Your task to perform on an android device: Search for logitech g502 on target, select the first entry, and add it to the cart. Image 0: 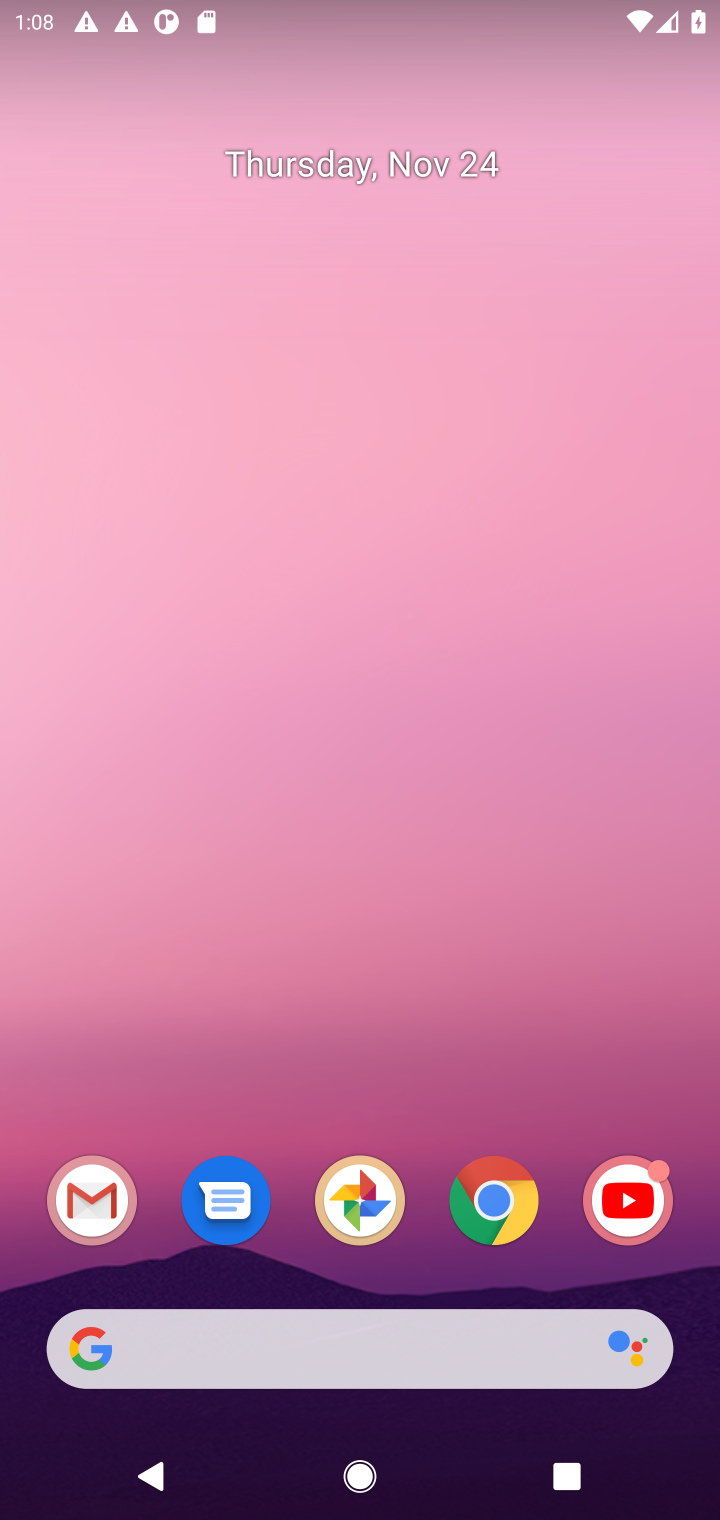
Step 0: click (411, 1313)
Your task to perform on an android device: Search for logitech g502 on target, select the first entry, and add it to the cart. Image 1: 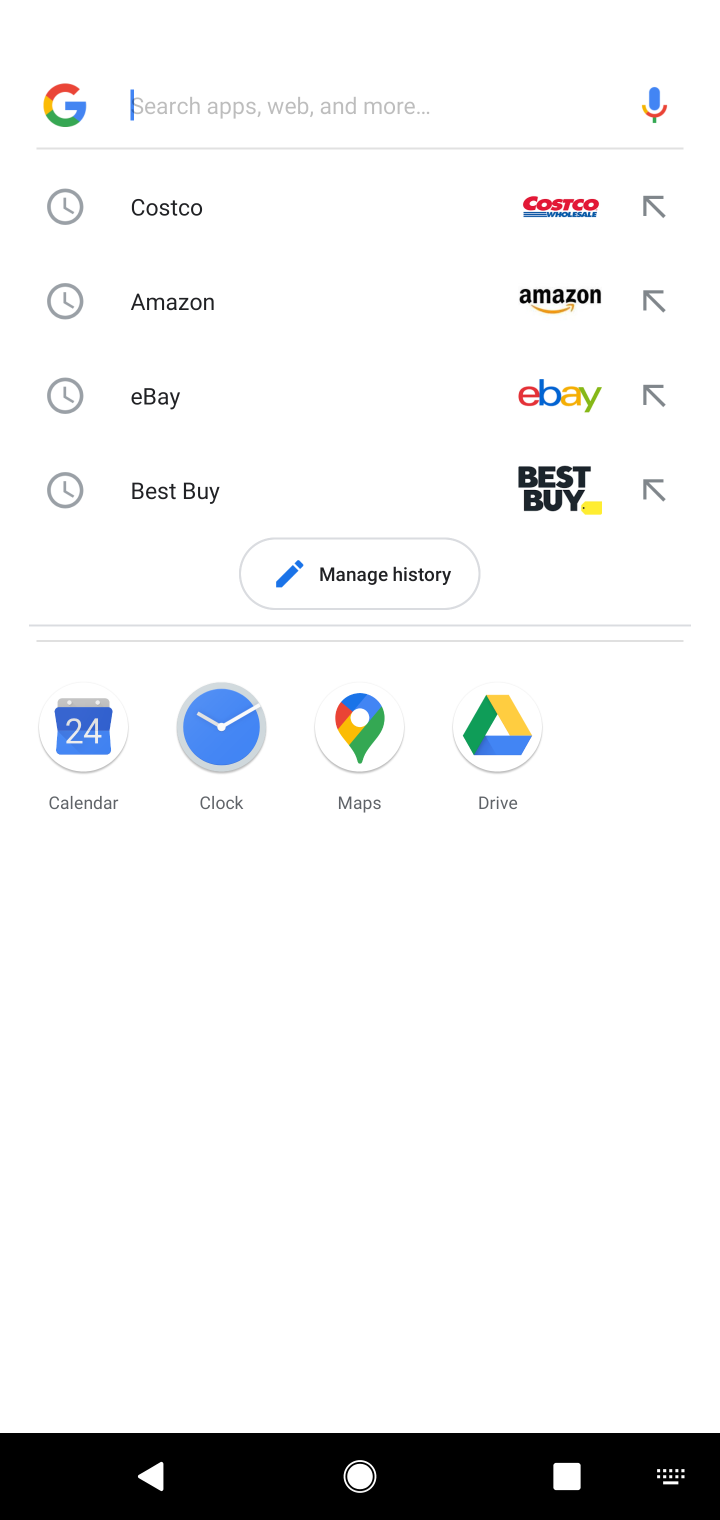
Step 1: type "target"
Your task to perform on an android device: Search for logitech g502 on target, select the first entry, and add it to the cart. Image 2: 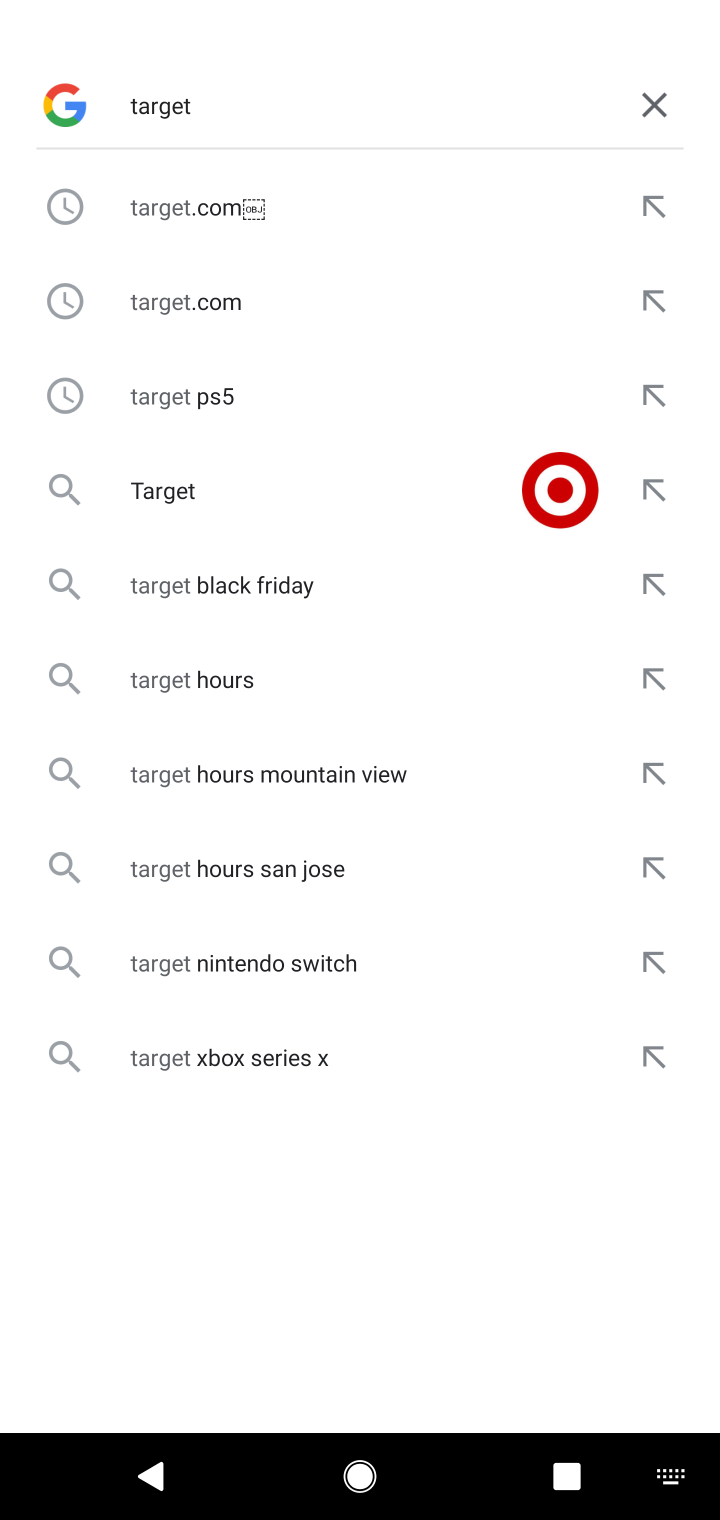
Step 2: type "taget"
Your task to perform on an android device: Search for logitech g502 on target, select the first entry, and add it to the cart. Image 3: 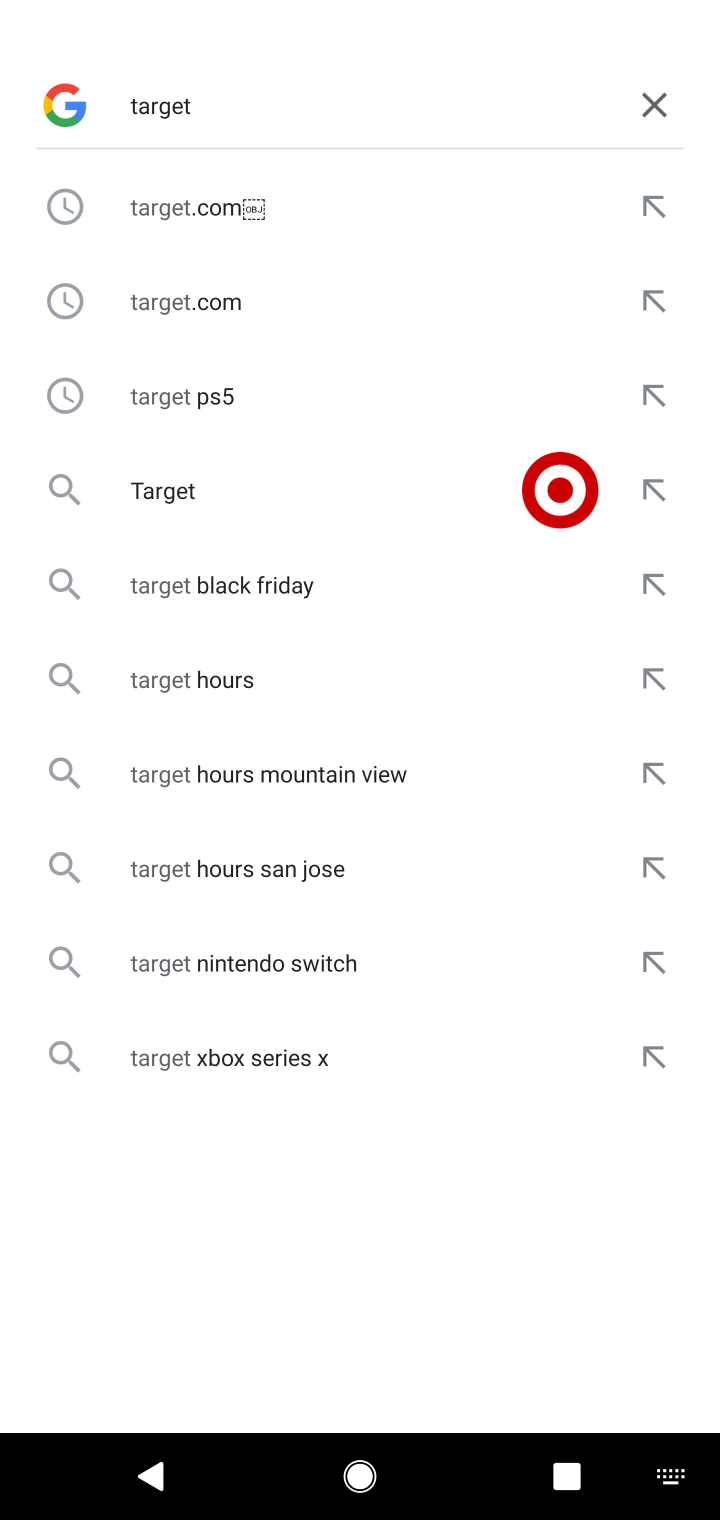
Step 3: click (255, 470)
Your task to perform on an android device: Search for logitech g502 on target, select the first entry, and add it to the cart. Image 4: 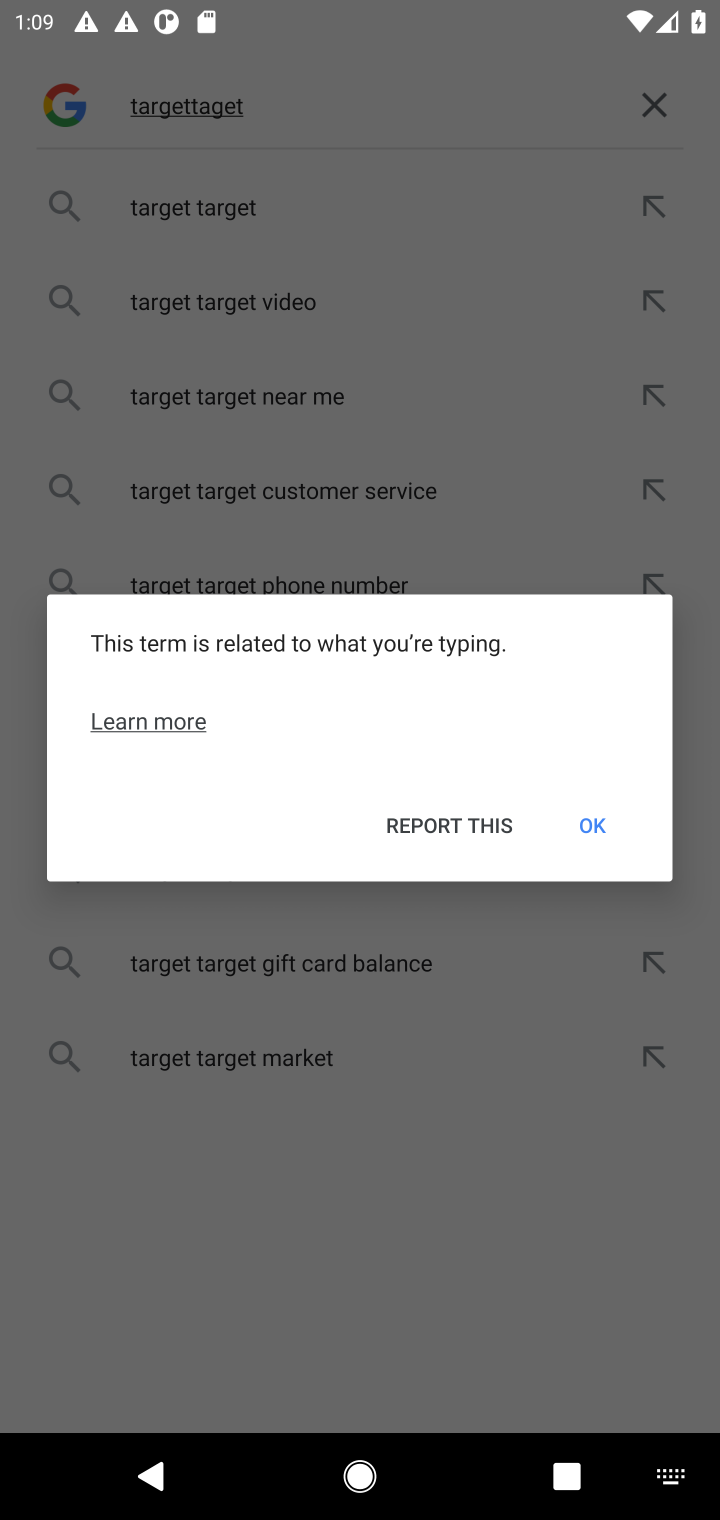
Step 4: task complete